Your task to perform on an android device: change notification settings in the gmail app Image 0: 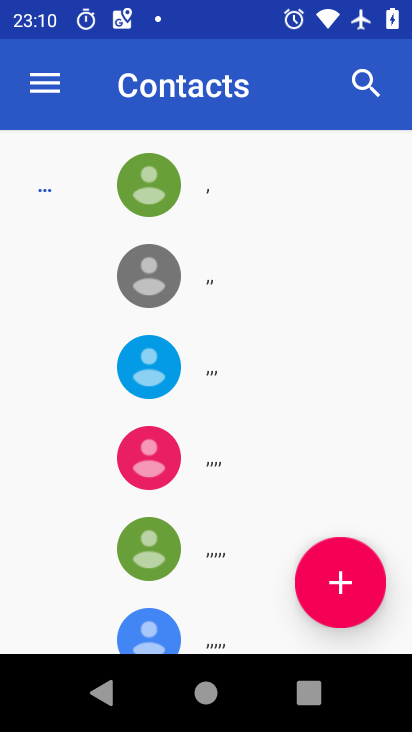
Step 0: drag from (221, 601) to (284, 112)
Your task to perform on an android device: change notification settings in the gmail app Image 1: 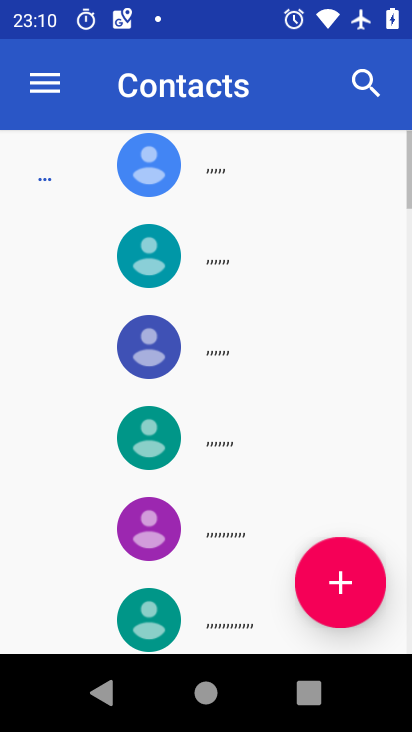
Step 1: press home button
Your task to perform on an android device: change notification settings in the gmail app Image 2: 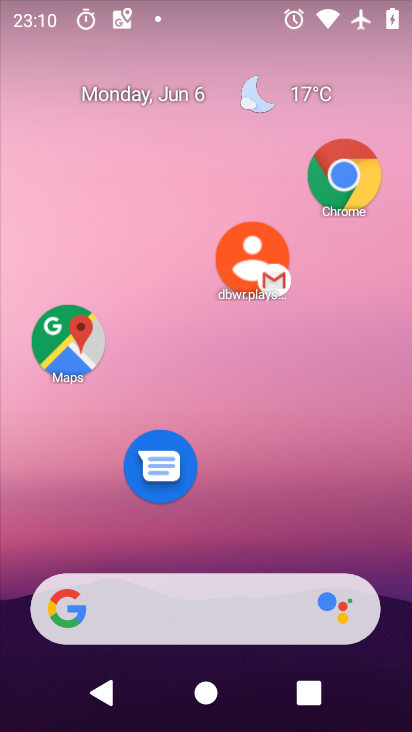
Step 2: drag from (212, 529) to (388, 593)
Your task to perform on an android device: change notification settings in the gmail app Image 3: 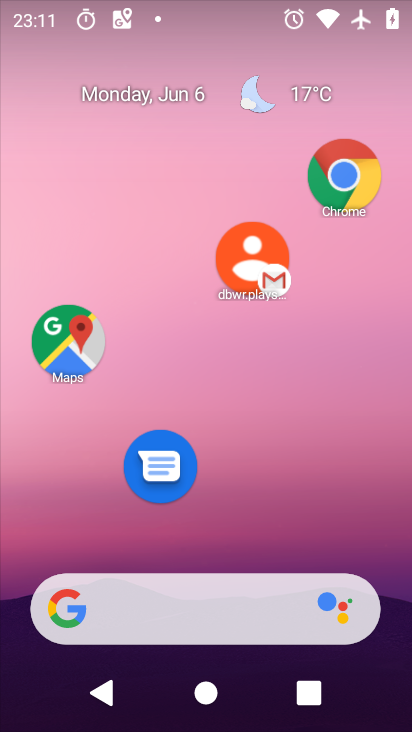
Step 3: drag from (246, 29) to (193, 28)
Your task to perform on an android device: change notification settings in the gmail app Image 4: 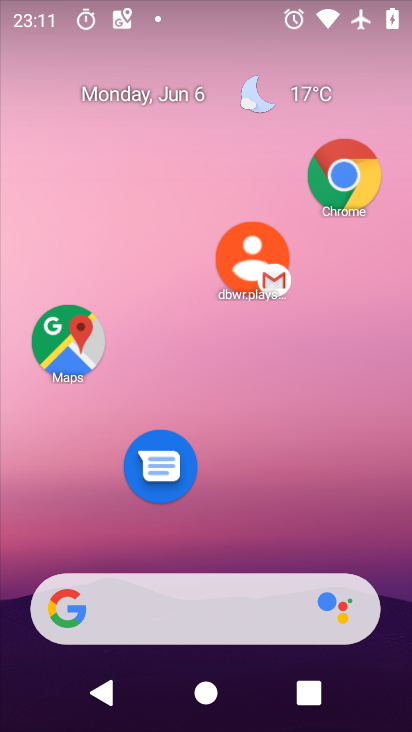
Step 4: drag from (205, 555) to (215, 128)
Your task to perform on an android device: change notification settings in the gmail app Image 5: 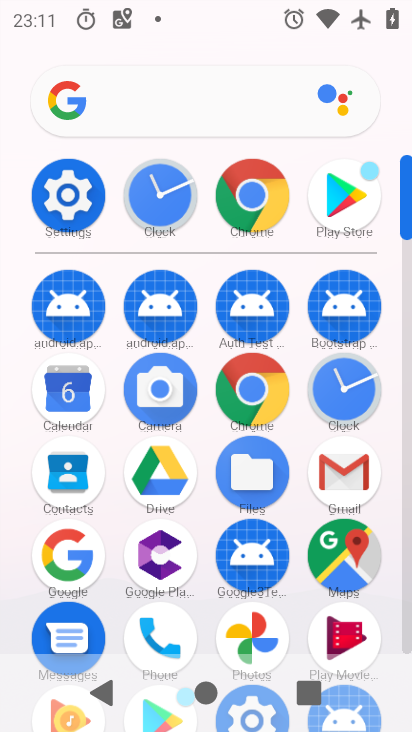
Step 5: click (345, 473)
Your task to perform on an android device: change notification settings in the gmail app Image 6: 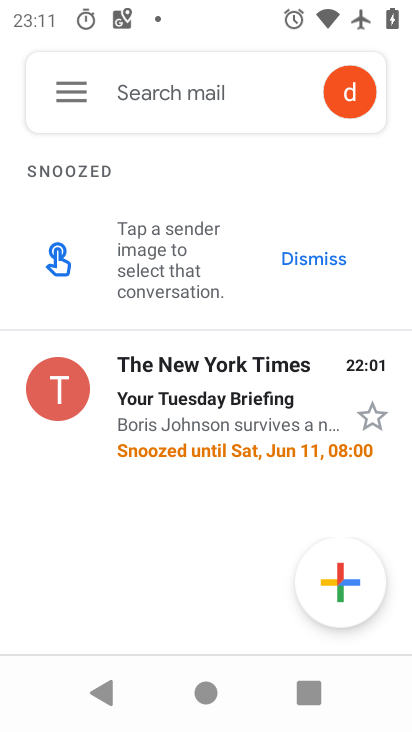
Step 6: click (66, 84)
Your task to perform on an android device: change notification settings in the gmail app Image 7: 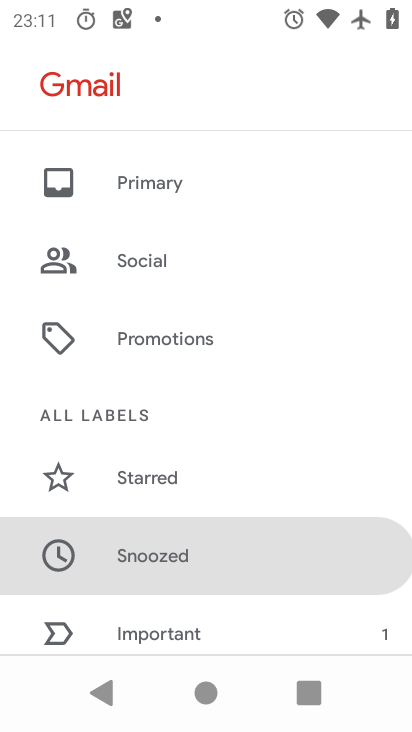
Step 7: drag from (213, 452) to (2, 148)
Your task to perform on an android device: change notification settings in the gmail app Image 8: 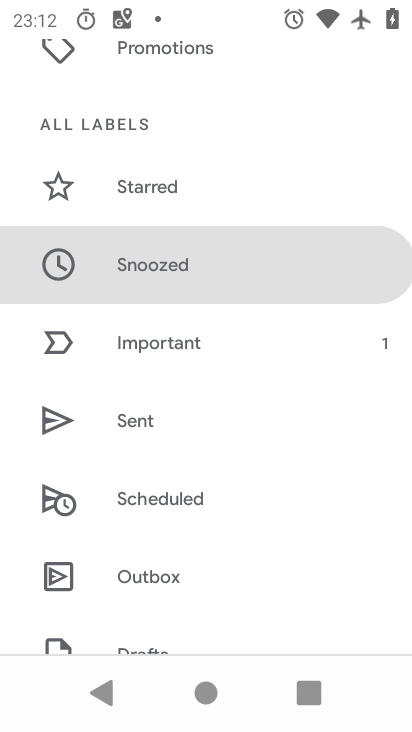
Step 8: drag from (229, 565) to (273, 106)
Your task to perform on an android device: change notification settings in the gmail app Image 9: 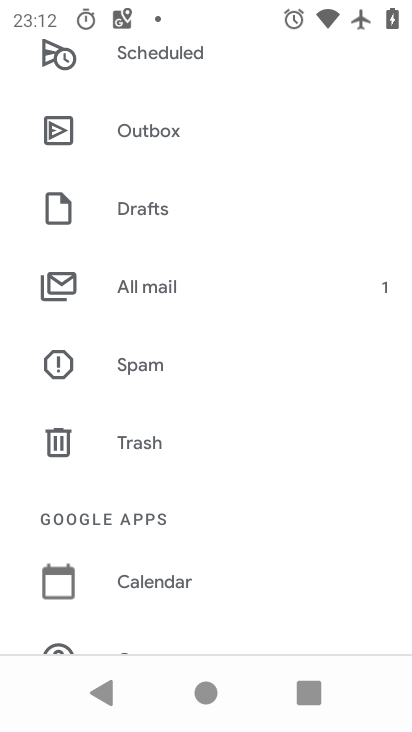
Step 9: drag from (185, 569) to (237, 122)
Your task to perform on an android device: change notification settings in the gmail app Image 10: 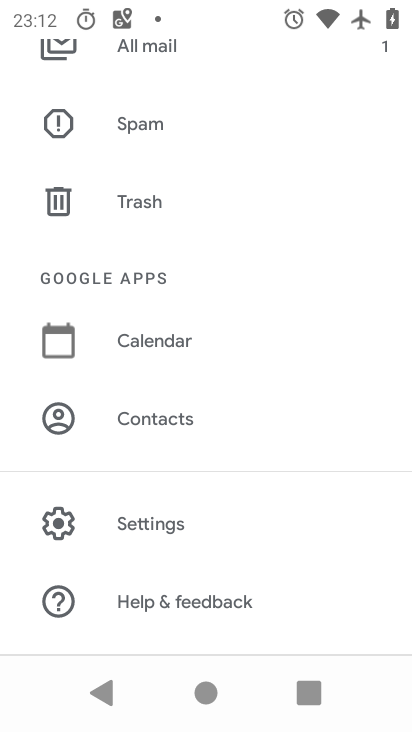
Step 10: click (176, 522)
Your task to perform on an android device: change notification settings in the gmail app Image 11: 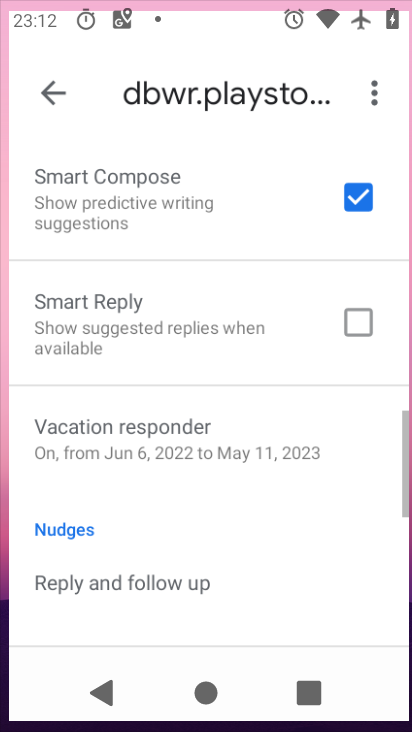
Step 11: drag from (181, 491) to (295, 95)
Your task to perform on an android device: change notification settings in the gmail app Image 12: 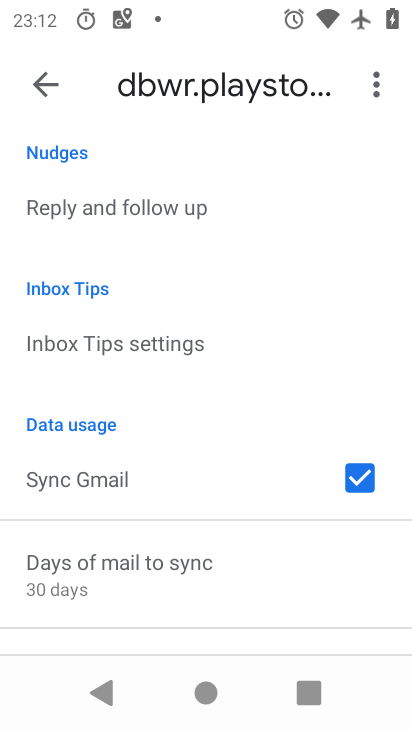
Step 12: drag from (152, 540) to (287, 44)
Your task to perform on an android device: change notification settings in the gmail app Image 13: 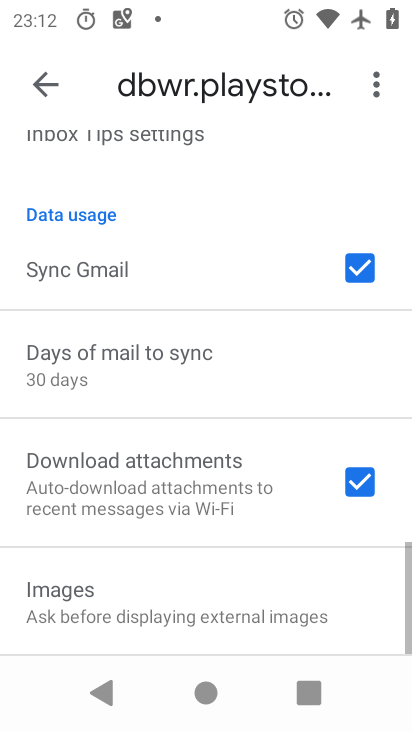
Step 13: drag from (188, 546) to (263, 98)
Your task to perform on an android device: change notification settings in the gmail app Image 14: 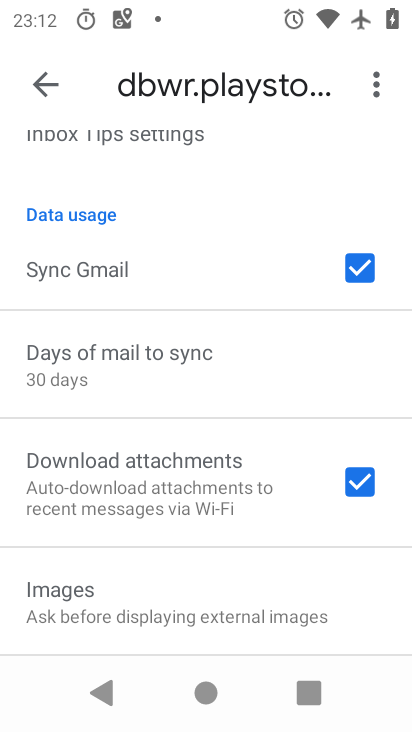
Step 14: drag from (201, 264) to (279, 730)
Your task to perform on an android device: change notification settings in the gmail app Image 15: 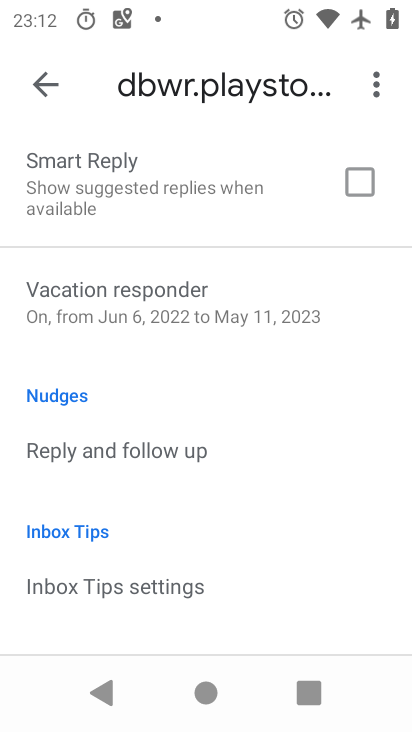
Step 15: drag from (184, 260) to (275, 729)
Your task to perform on an android device: change notification settings in the gmail app Image 16: 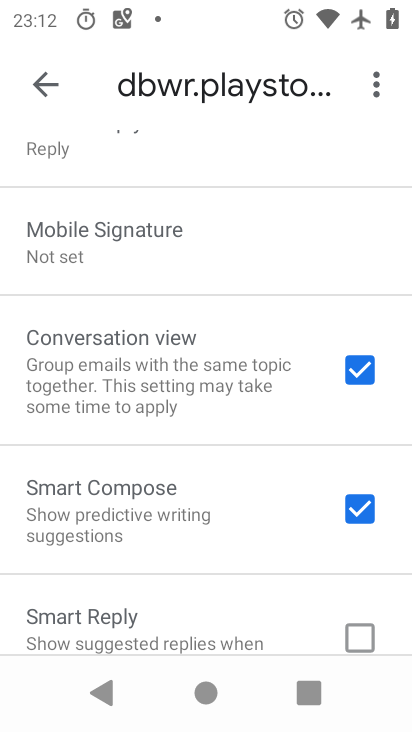
Step 16: drag from (201, 251) to (290, 662)
Your task to perform on an android device: change notification settings in the gmail app Image 17: 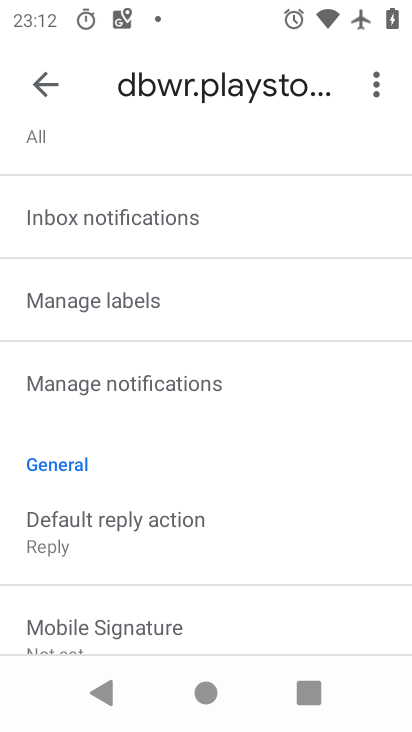
Step 17: click (151, 379)
Your task to perform on an android device: change notification settings in the gmail app Image 18: 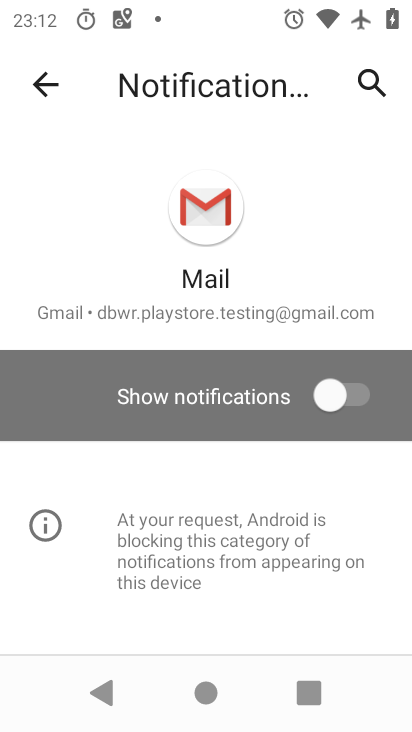
Step 18: click (254, 387)
Your task to perform on an android device: change notification settings in the gmail app Image 19: 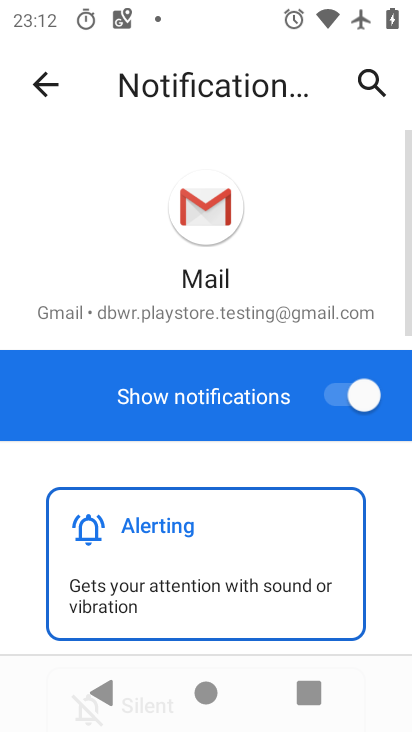
Step 19: task complete